Your task to perform on an android device: turn on the 12-hour format for clock Image 0: 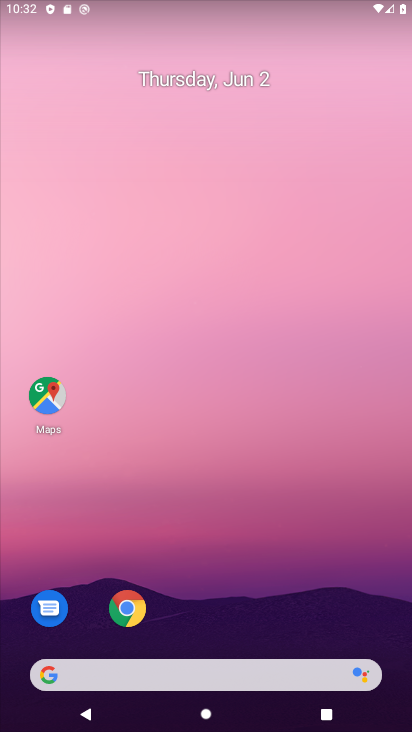
Step 0: click (258, 62)
Your task to perform on an android device: turn on the 12-hour format for clock Image 1: 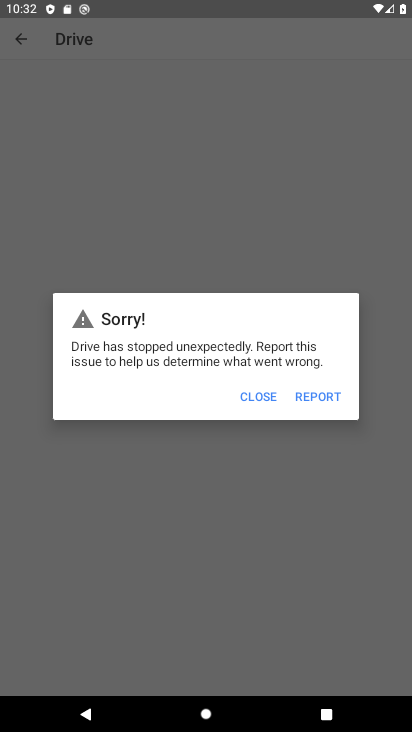
Step 1: press home button
Your task to perform on an android device: turn on the 12-hour format for clock Image 2: 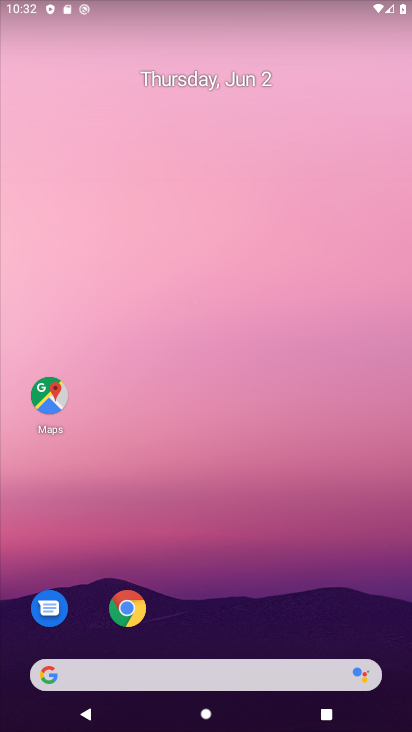
Step 2: drag from (180, 602) to (241, 152)
Your task to perform on an android device: turn on the 12-hour format for clock Image 3: 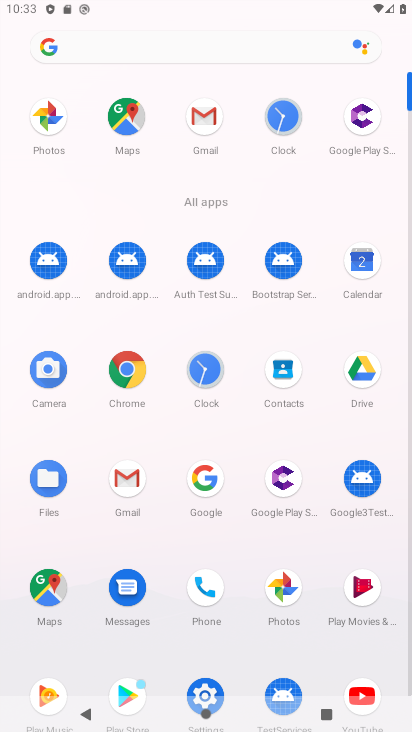
Step 3: click (211, 360)
Your task to perform on an android device: turn on the 12-hour format for clock Image 4: 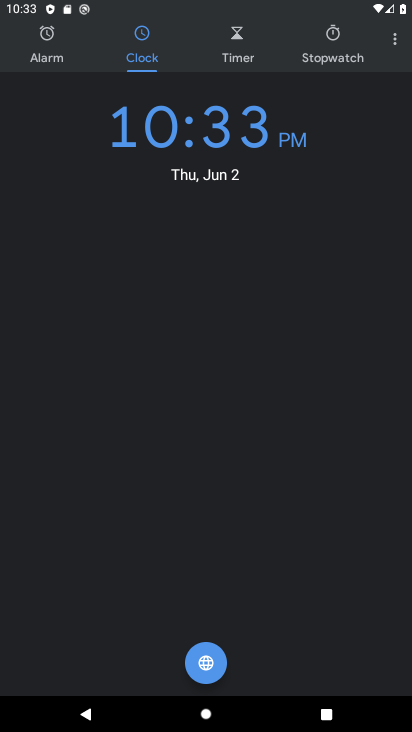
Step 4: click (390, 53)
Your task to perform on an android device: turn on the 12-hour format for clock Image 5: 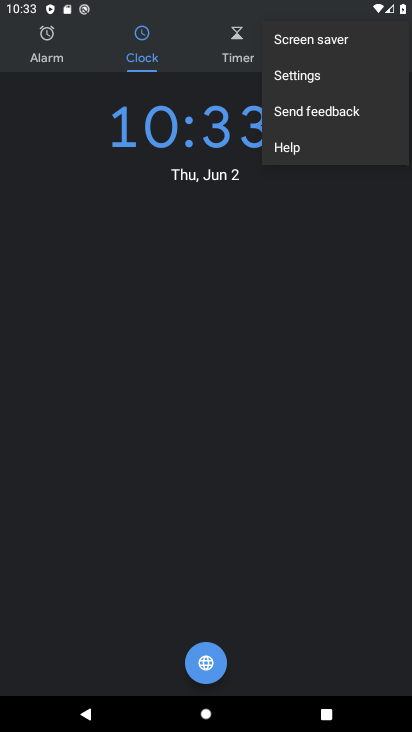
Step 5: click (297, 70)
Your task to perform on an android device: turn on the 12-hour format for clock Image 6: 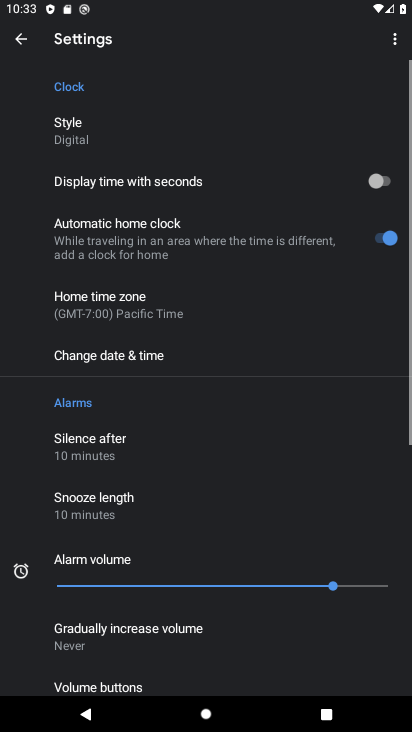
Step 6: drag from (135, 438) to (220, 170)
Your task to perform on an android device: turn on the 12-hour format for clock Image 7: 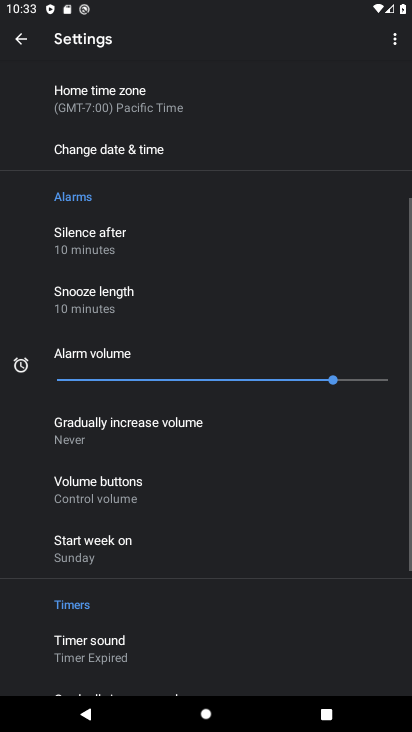
Step 7: drag from (233, 206) to (55, 706)
Your task to perform on an android device: turn on the 12-hour format for clock Image 8: 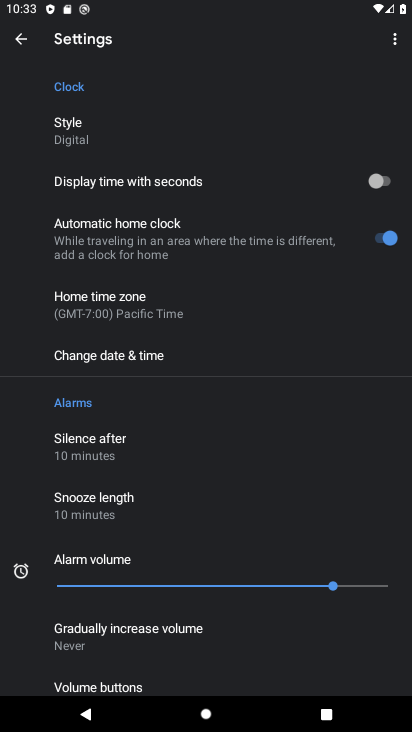
Step 8: drag from (182, 578) to (290, 181)
Your task to perform on an android device: turn on the 12-hour format for clock Image 9: 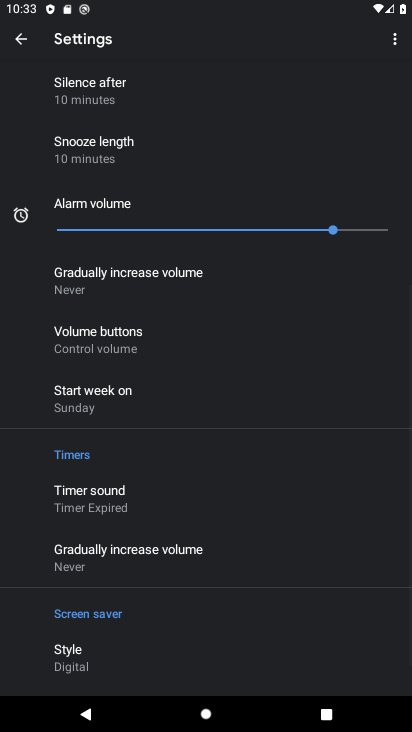
Step 9: drag from (231, 256) to (364, 613)
Your task to perform on an android device: turn on the 12-hour format for clock Image 10: 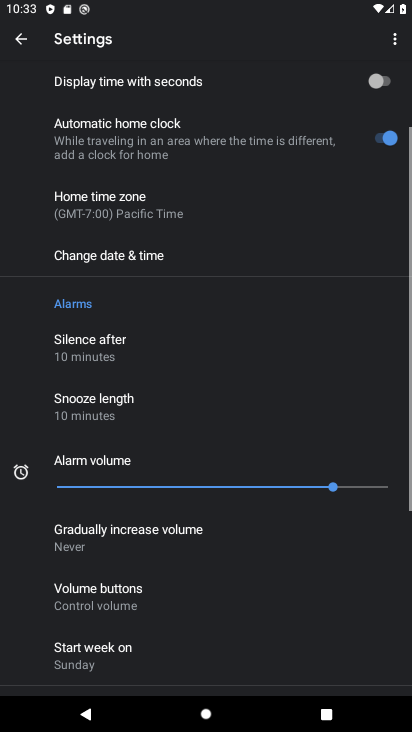
Step 10: drag from (268, 542) to (305, 86)
Your task to perform on an android device: turn on the 12-hour format for clock Image 11: 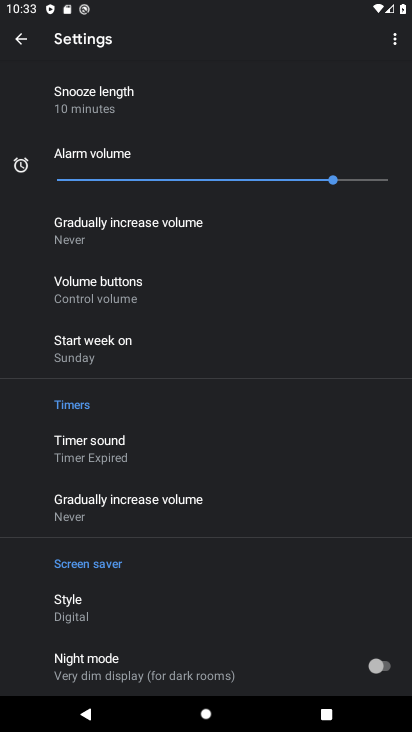
Step 11: drag from (258, 237) to (279, 722)
Your task to perform on an android device: turn on the 12-hour format for clock Image 12: 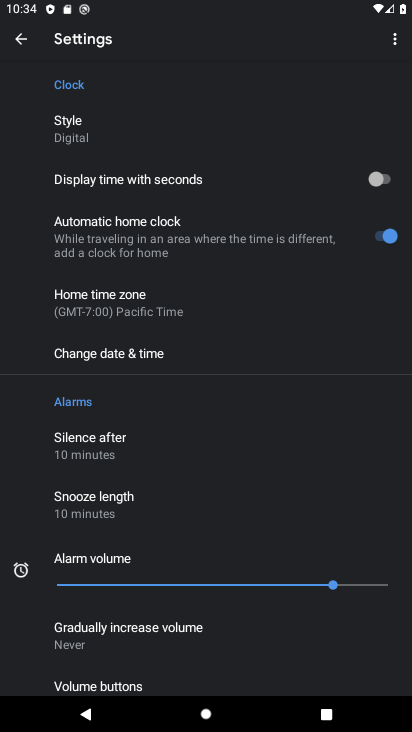
Step 12: click (227, 352)
Your task to perform on an android device: turn on the 12-hour format for clock Image 13: 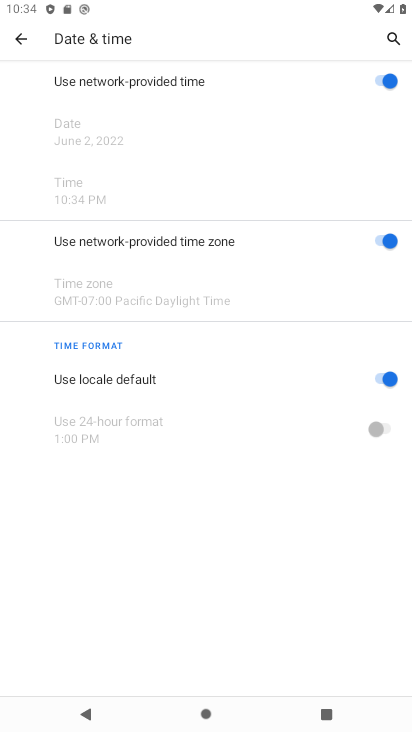
Step 13: task complete